Your task to perform on an android device: Open Chrome and go to settings Image 0: 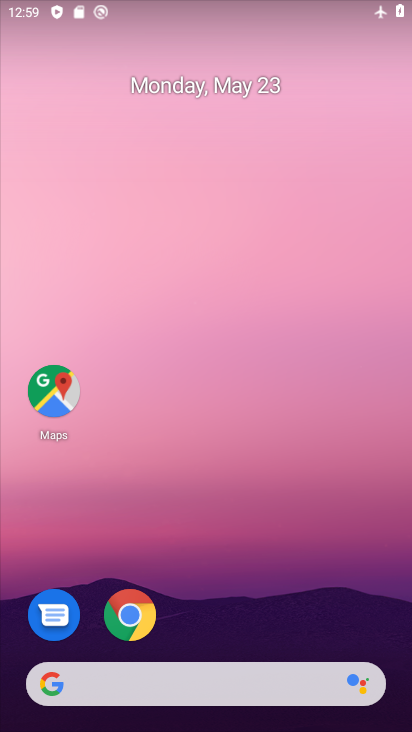
Step 0: drag from (223, 658) to (165, 12)
Your task to perform on an android device: Open Chrome and go to settings Image 1: 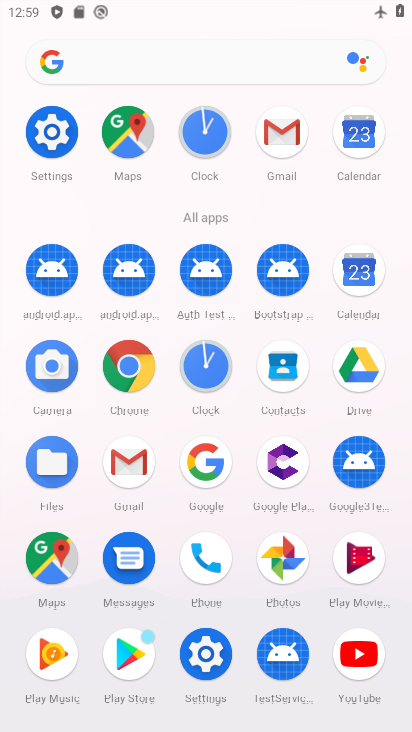
Step 1: click (143, 377)
Your task to perform on an android device: Open Chrome and go to settings Image 2: 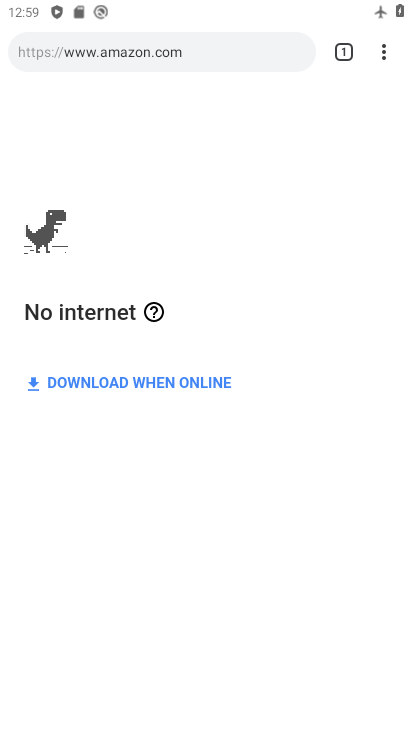
Step 2: click (386, 52)
Your task to perform on an android device: Open Chrome and go to settings Image 3: 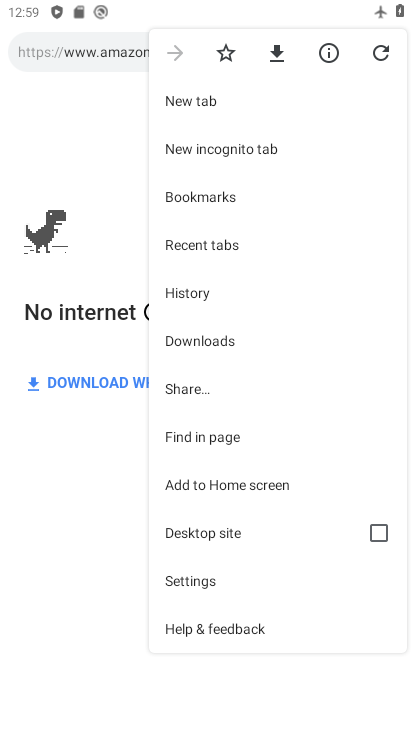
Step 3: click (218, 579)
Your task to perform on an android device: Open Chrome and go to settings Image 4: 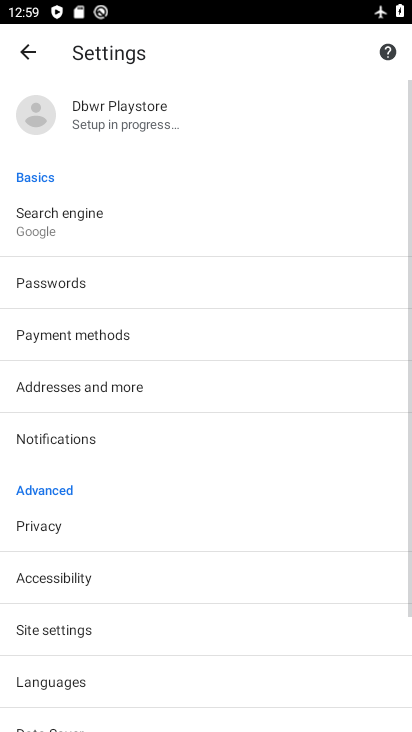
Step 4: task complete